Your task to perform on an android device: Open the map Image 0: 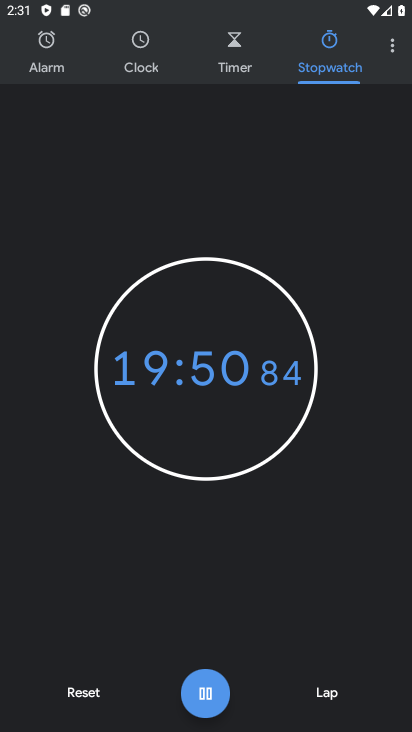
Step 0: press home button
Your task to perform on an android device: Open the map Image 1: 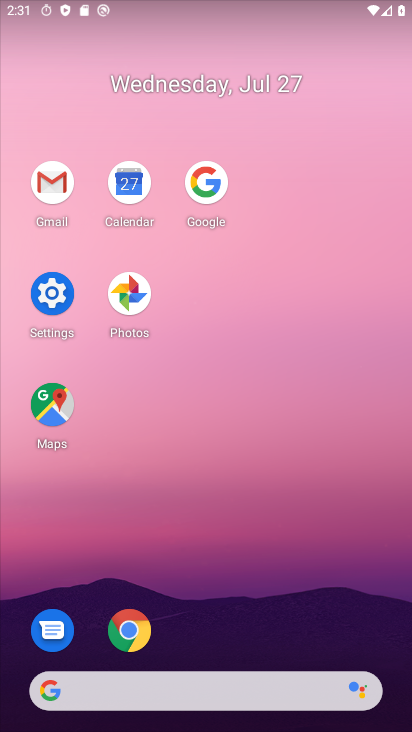
Step 1: click (50, 405)
Your task to perform on an android device: Open the map Image 2: 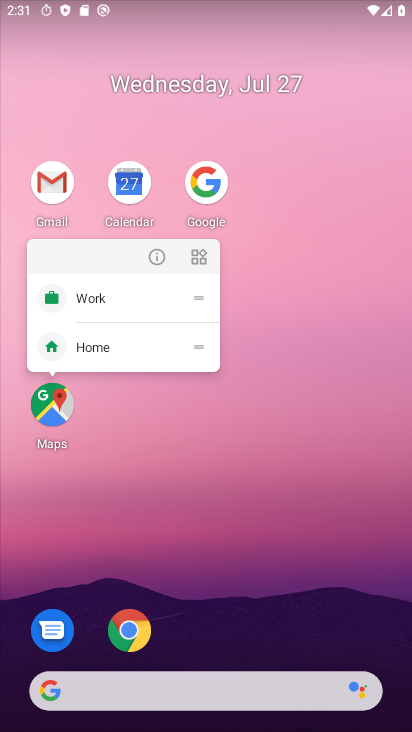
Step 2: click (43, 415)
Your task to perform on an android device: Open the map Image 3: 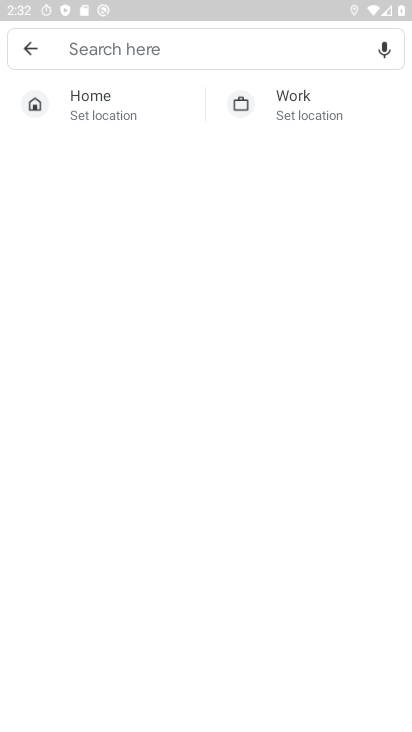
Step 3: task complete